Your task to perform on an android device: turn off location history Image 0: 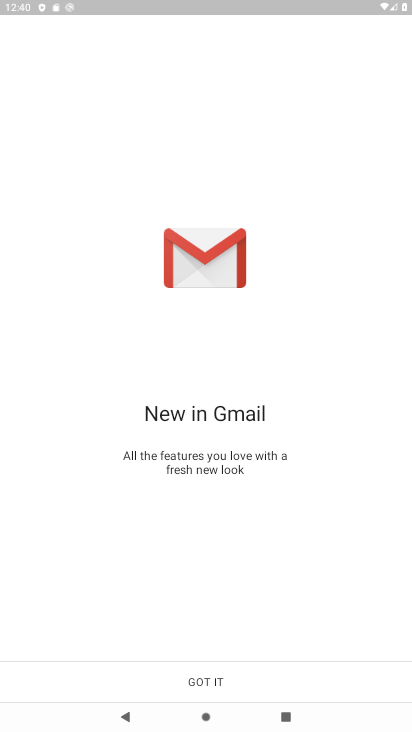
Step 0: press home button
Your task to perform on an android device: turn off location history Image 1: 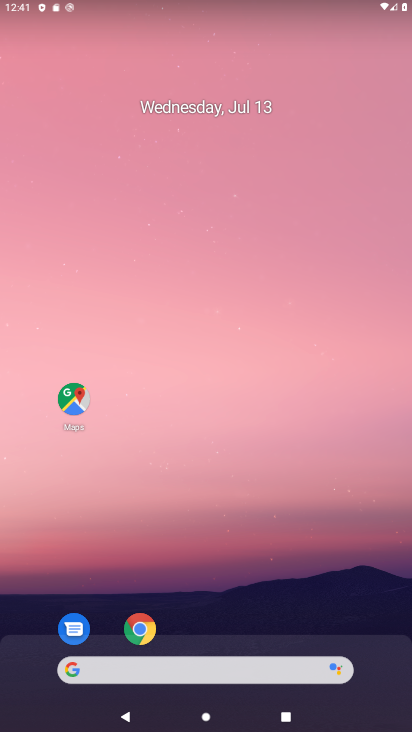
Step 1: drag from (196, 633) to (251, 88)
Your task to perform on an android device: turn off location history Image 2: 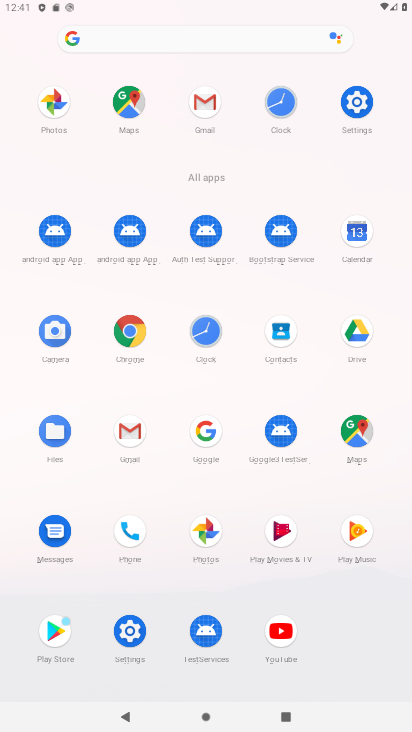
Step 2: click (124, 630)
Your task to perform on an android device: turn off location history Image 3: 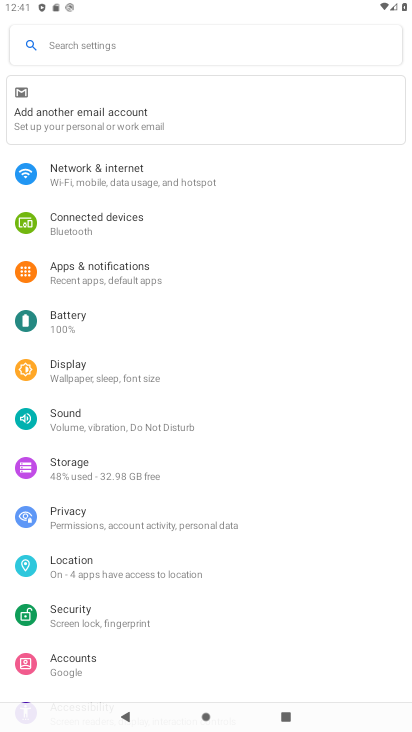
Step 3: click (99, 572)
Your task to perform on an android device: turn off location history Image 4: 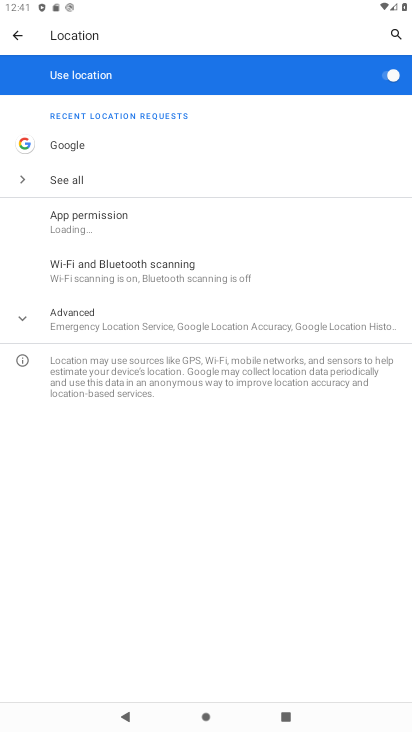
Step 4: click (393, 78)
Your task to perform on an android device: turn off location history Image 5: 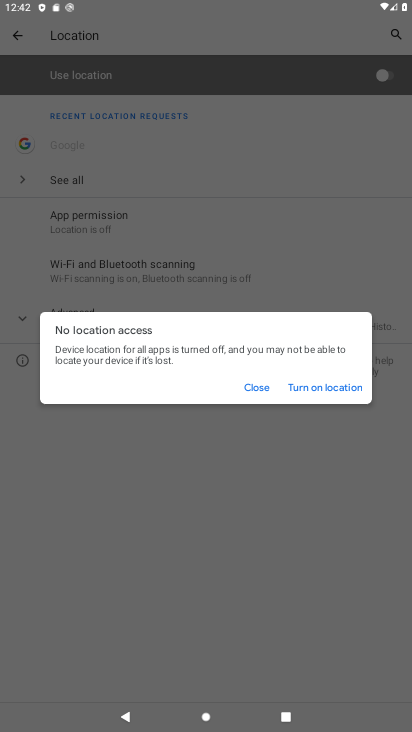
Step 5: click (240, 383)
Your task to perform on an android device: turn off location history Image 6: 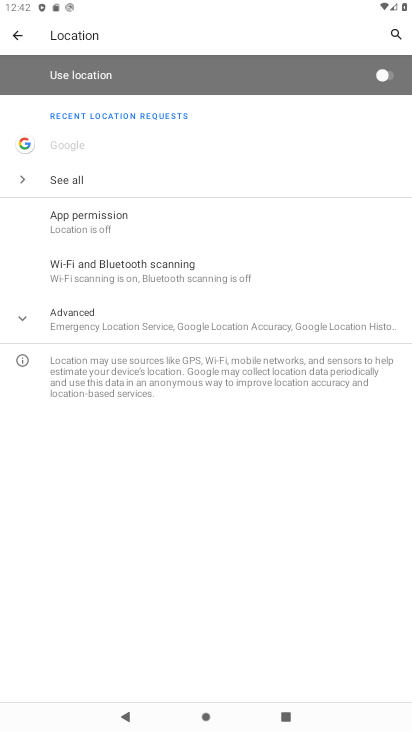
Step 6: task complete